Your task to perform on an android device: change timer sound Image 0: 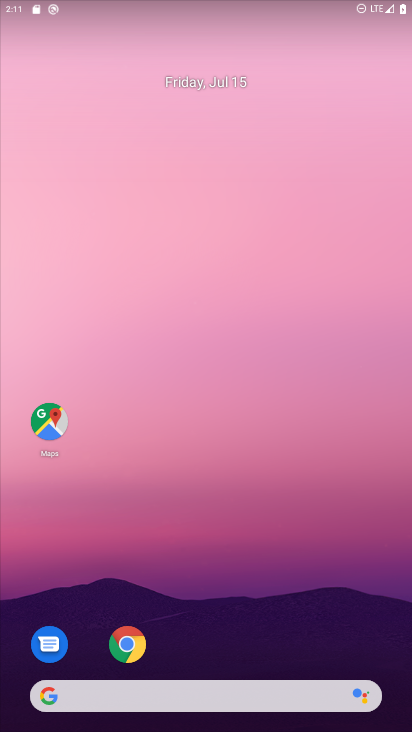
Step 0: drag from (37, 561) to (242, 112)
Your task to perform on an android device: change timer sound Image 1: 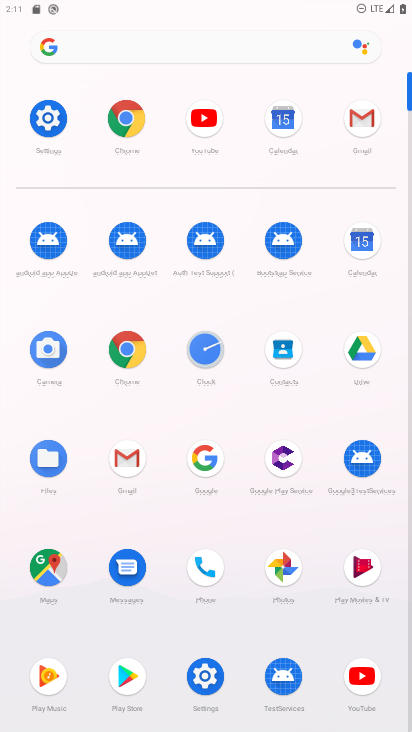
Step 1: click (216, 354)
Your task to perform on an android device: change timer sound Image 2: 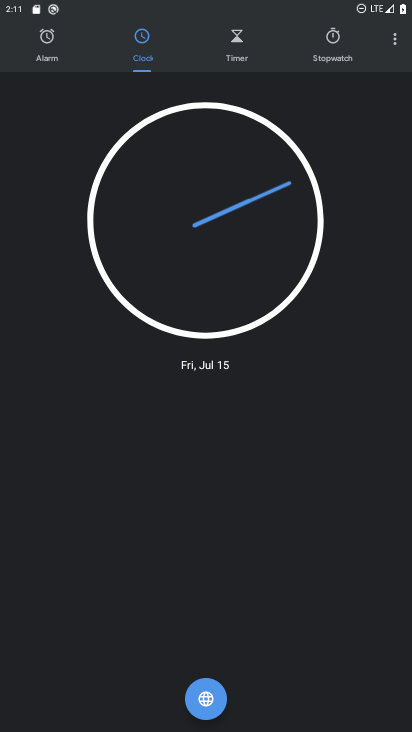
Step 2: click (394, 46)
Your task to perform on an android device: change timer sound Image 3: 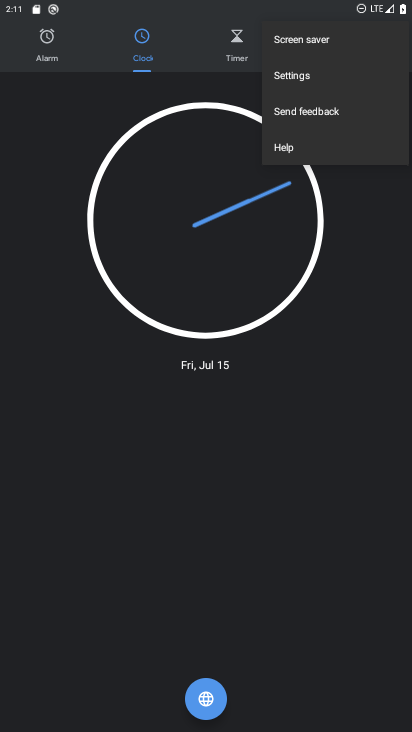
Step 3: click (274, 69)
Your task to perform on an android device: change timer sound Image 4: 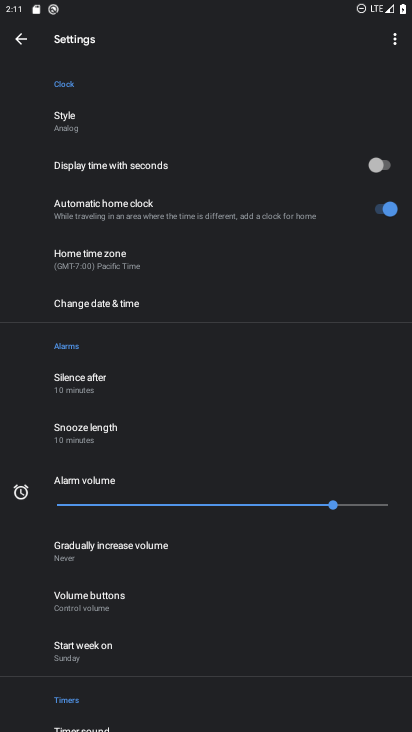
Step 4: drag from (16, 592) to (211, 128)
Your task to perform on an android device: change timer sound Image 5: 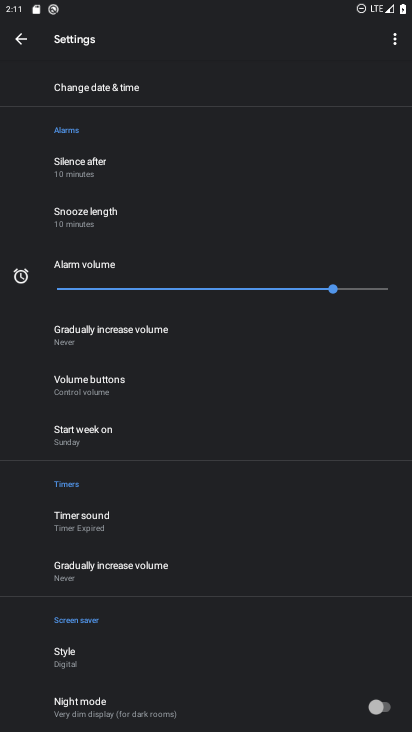
Step 5: click (113, 514)
Your task to perform on an android device: change timer sound Image 6: 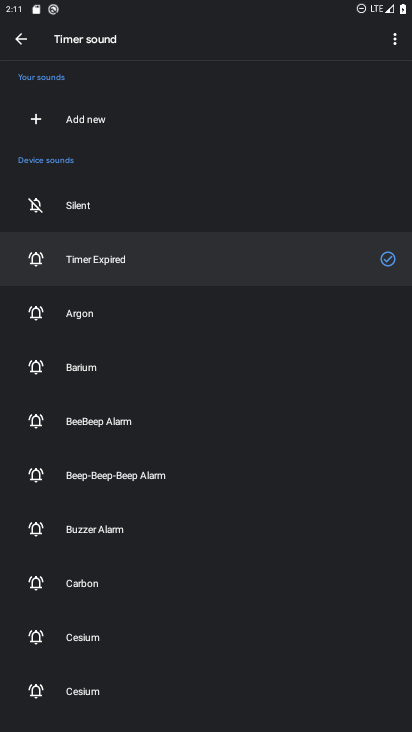
Step 6: click (102, 318)
Your task to perform on an android device: change timer sound Image 7: 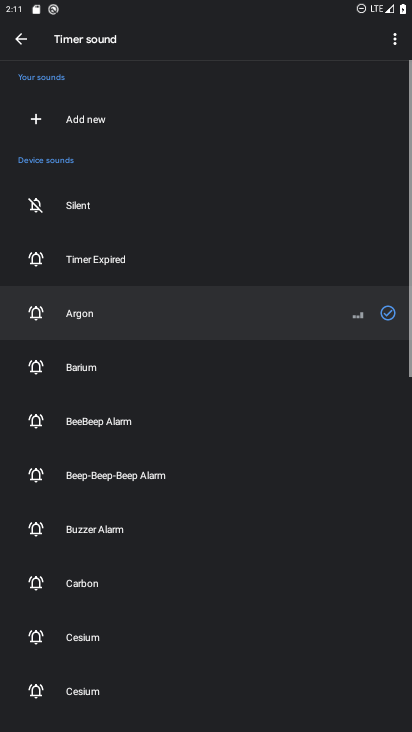
Step 7: task complete